Your task to perform on an android device: star an email in the gmail app Image 0: 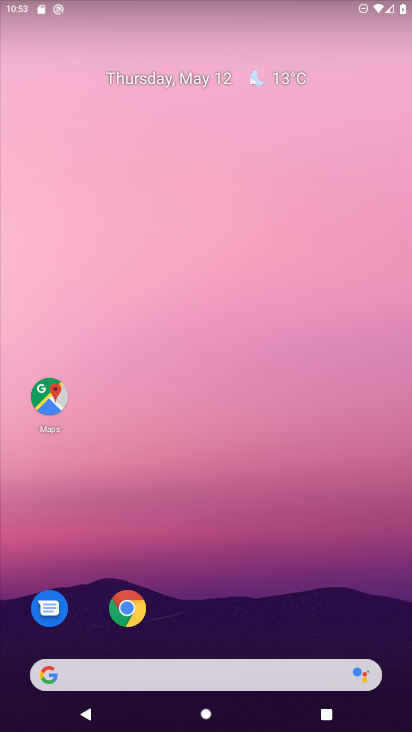
Step 0: drag from (236, 593) to (204, 111)
Your task to perform on an android device: star an email in the gmail app Image 1: 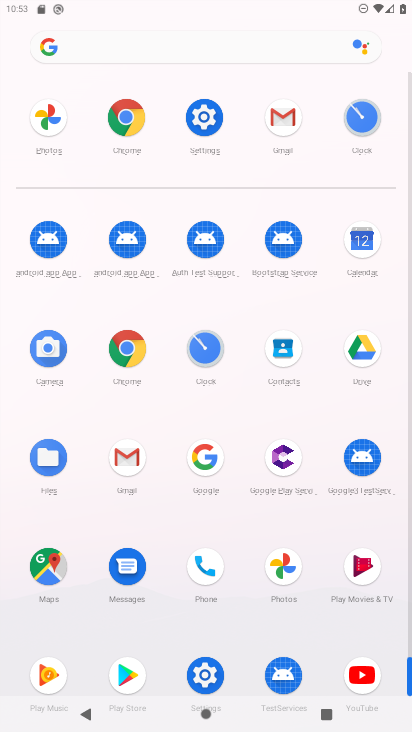
Step 1: click (283, 121)
Your task to perform on an android device: star an email in the gmail app Image 2: 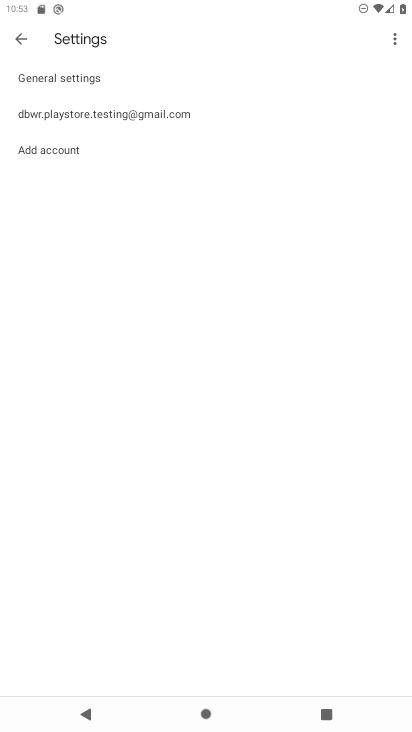
Step 2: press back button
Your task to perform on an android device: star an email in the gmail app Image 3: 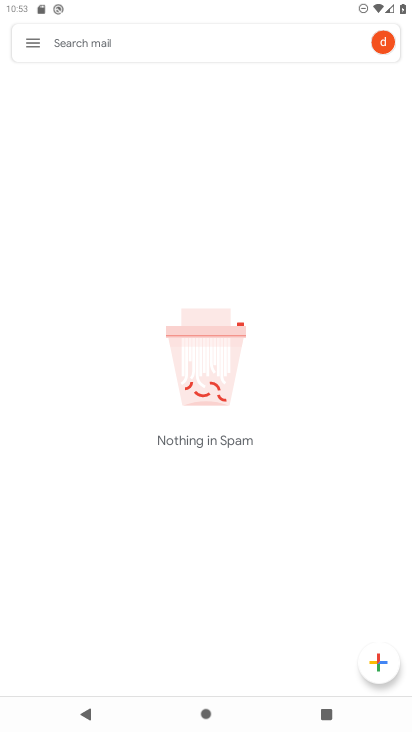
Step 3: click (36, 44)
Your task to perform on an android device: star an email in the gmail app Image 4: 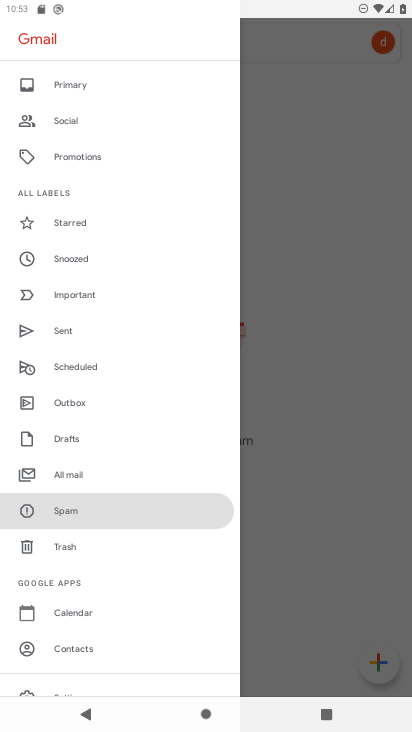
Step 4: click (61, 464)
Your task to perform on an android device: star an email in the gmail app Image 5: 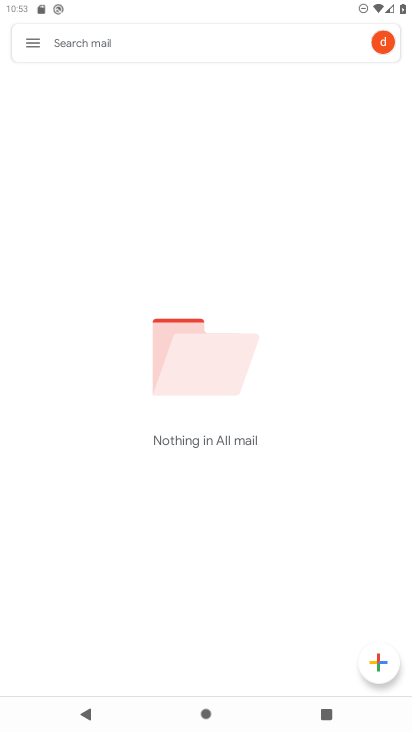
Step 5: task complete